Your task to perform on an android device: What's on my calendar today? Image 0: 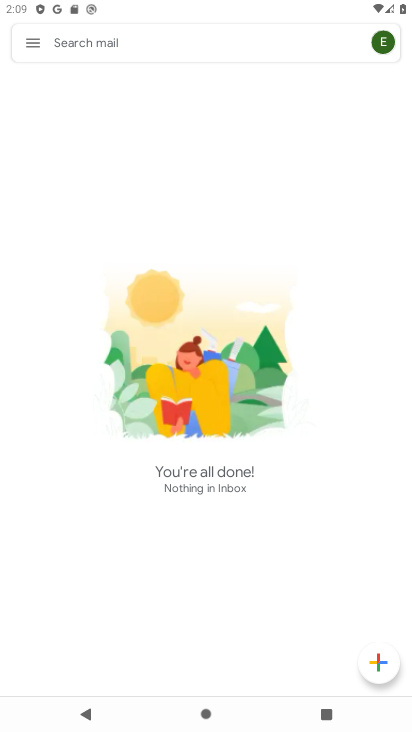
Step 0: press home button
Your task to perform on an android device: What's on my calendar today? Image 1: 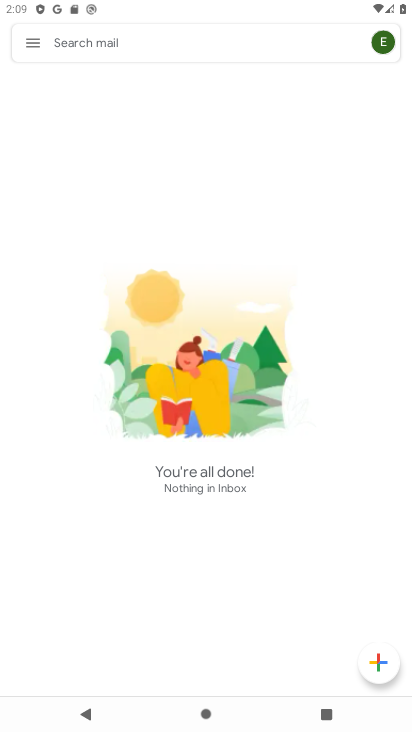
Step 1: press home button
Your task to perform on an android device: What's on my calendar today? Image 2: 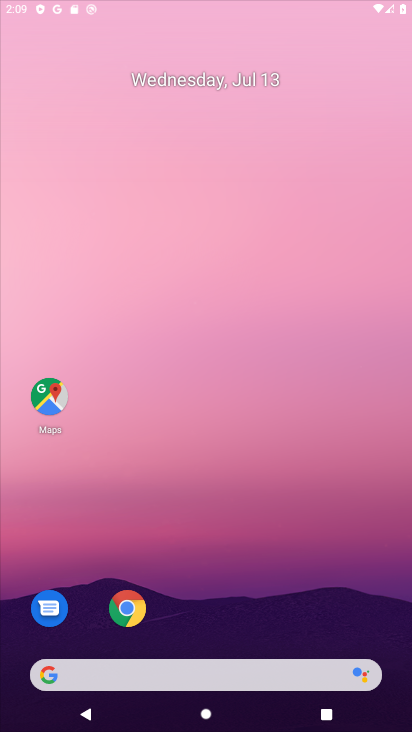
Step 2: press home button
Your task to perform on an android device: What's on my calendar today? Image 3: 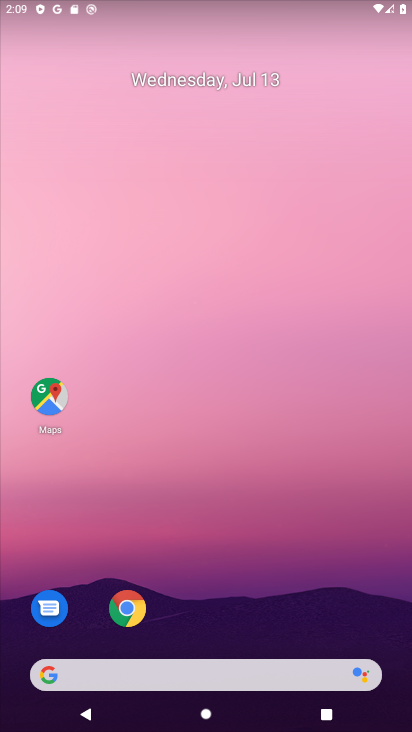
Step 3: press home button
Your task to perform on an android device: What's on my calendar today? Image 4: 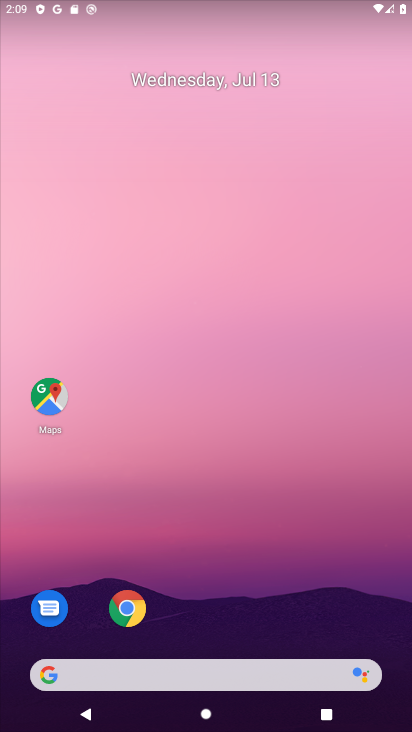
Step 4: click (191, 78)
Your task to perform on an android device: What's on my calendar today? Image 5: 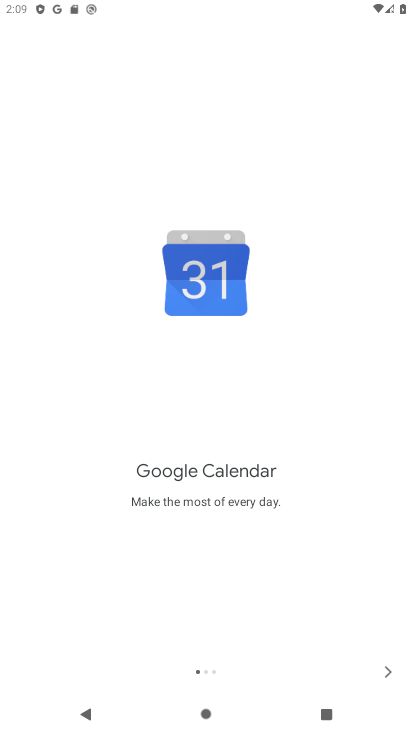
Step 5: click (393, 670)
Your task to perform on an android device: What's on my calendar today? Image 6: 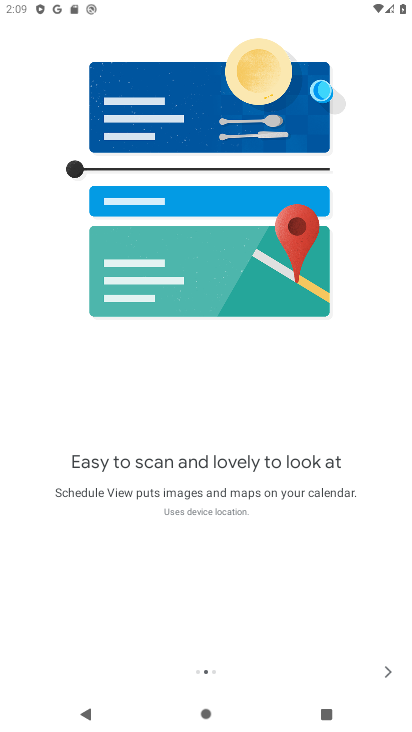
Step 6: click (393, 670)
Your task to perform on an android device: What's on my calendar today? Image 7: 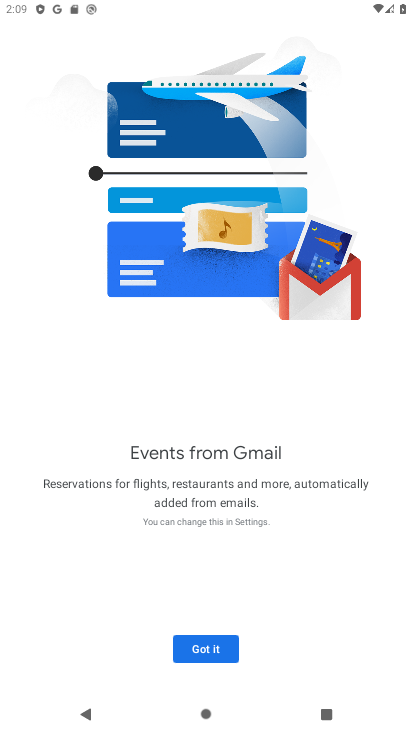
Step 7: click (211, 642)
Your task to perform on an android device: What's on my calendar today? Image 8: 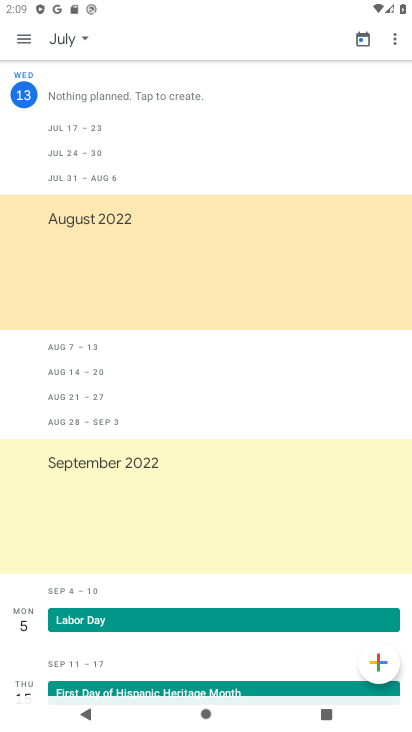
Step 8: click (68, 21)
Your task to perform on an android device: What's on my calendar today? Image 9: 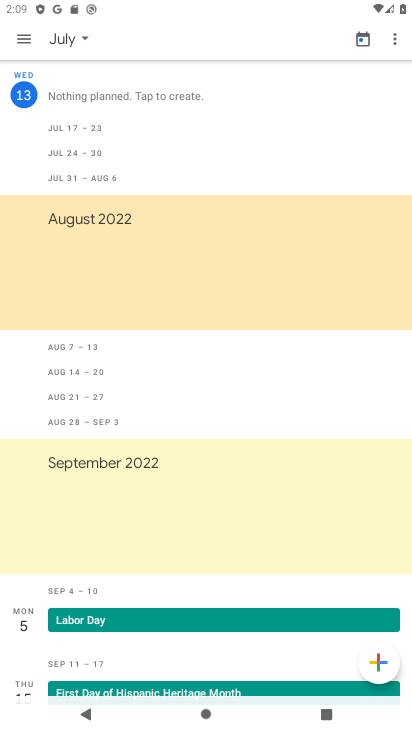
Step 9: click (72, 35)
Your task to perform on an android device: What's on my calendar today? Image 10: 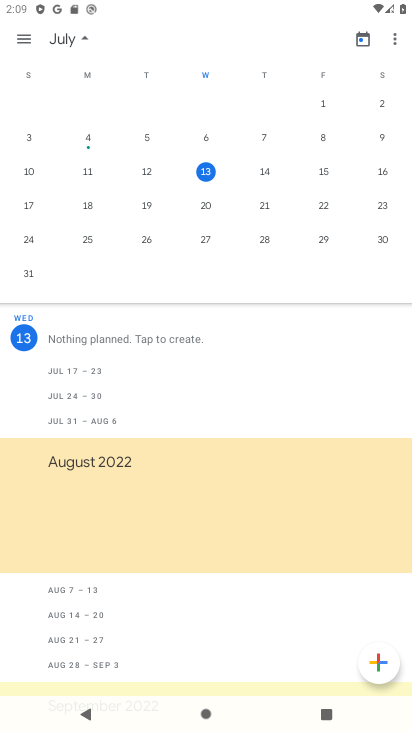
Step 10: click (207, 178)
Your task to perform on an android device: What's on my calendar today? Image 11: 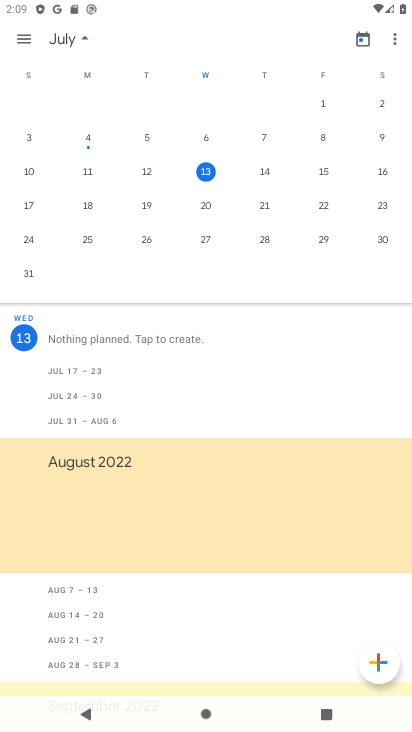
Step 11: task complete